Your task to perform on an android device: search for starred emails in the gmail app Image 0: 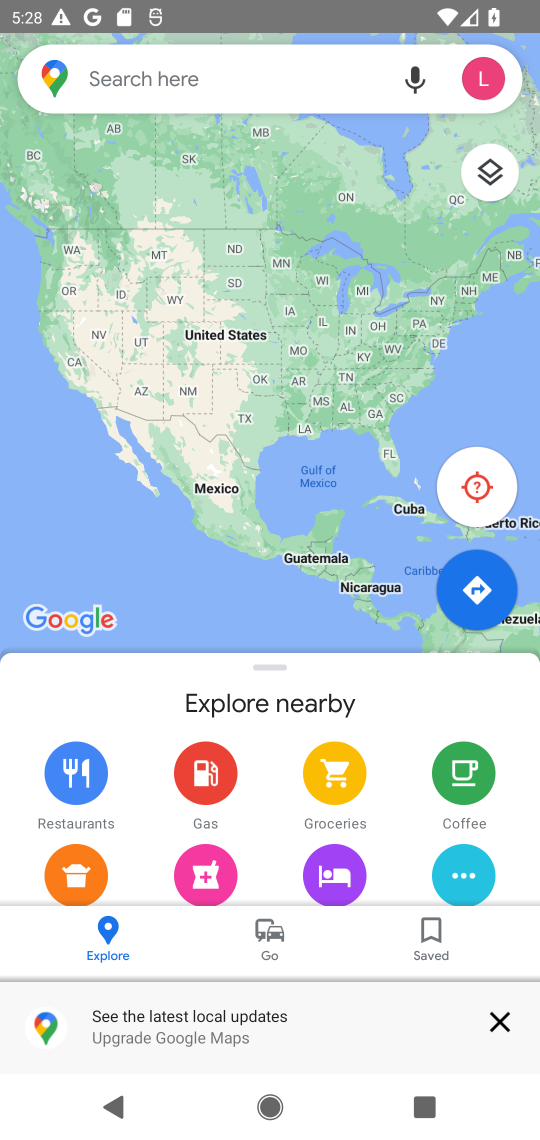
Step 0: task complete